Your task to perform on an android device: change keyboard looks Image 0: 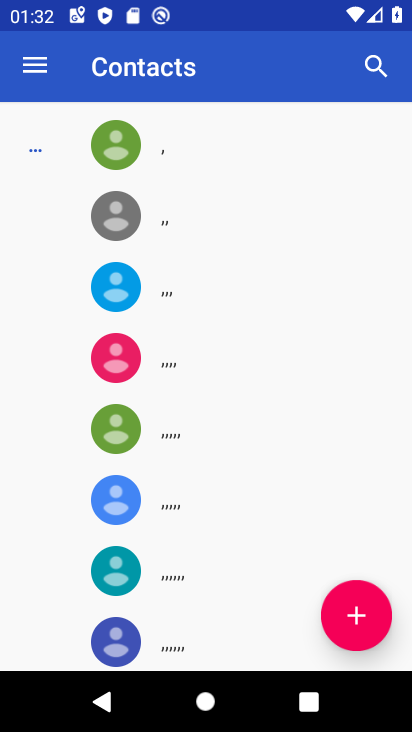
Step 0: press home button
Your task to perform on an android device: change keyboard looks Image 1: 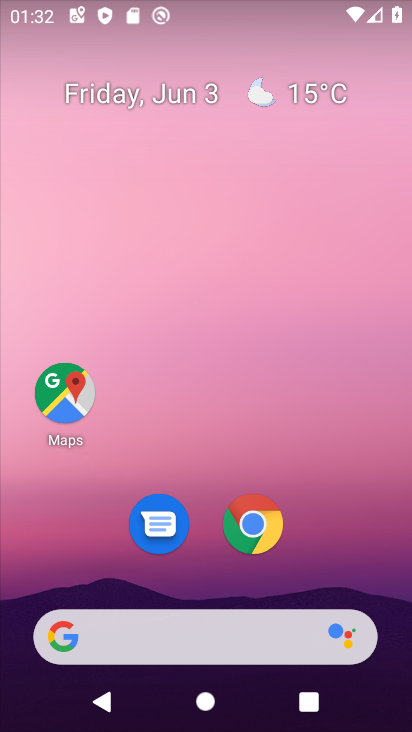
Step 1: drag from (344, 544) to (262, 4)
Your task to perform on an android device: change keyboard looks Image 2: 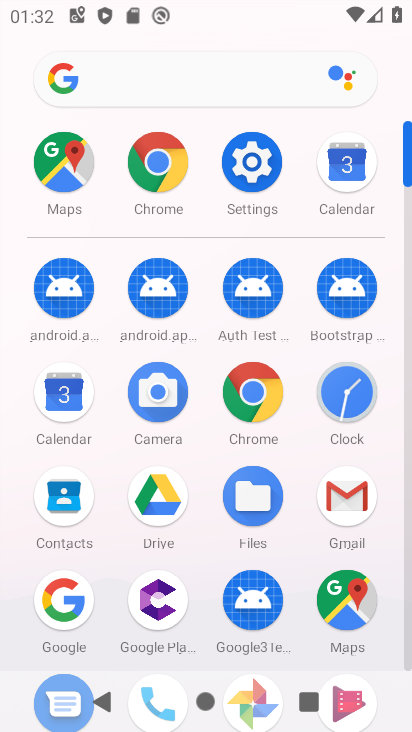
Step 2: click (252, 167)
Your task to perform on an android device: change keyboard looks Image 3: 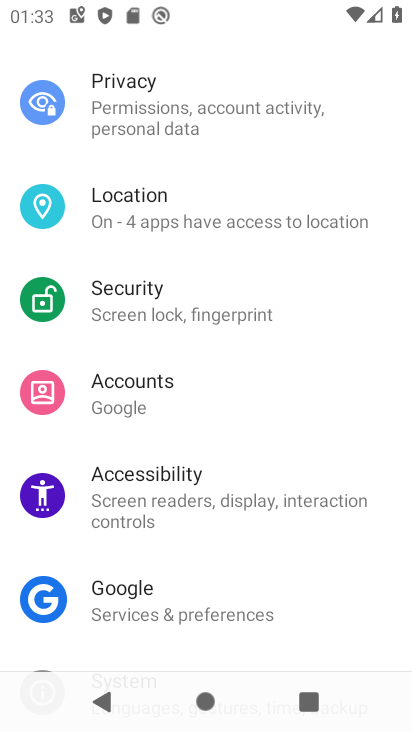
Step 3: drag from (260, 562) to (281, 46)
Your task to perform on an android device: change keyboard looks Image 4: 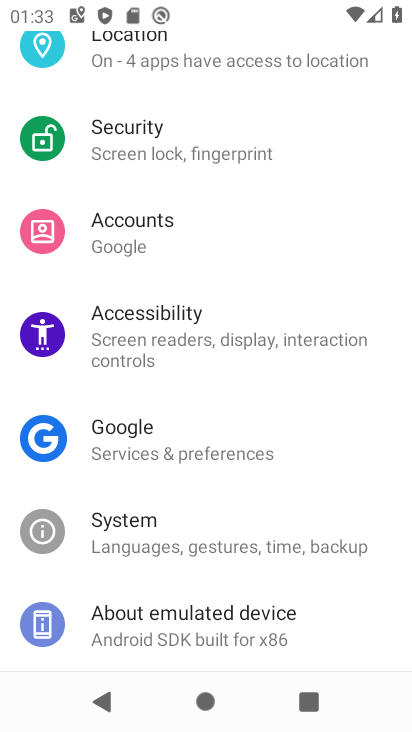
Step 4: click (210, 537)
Your task to perform on an android device: change keyboard looks Image 5: 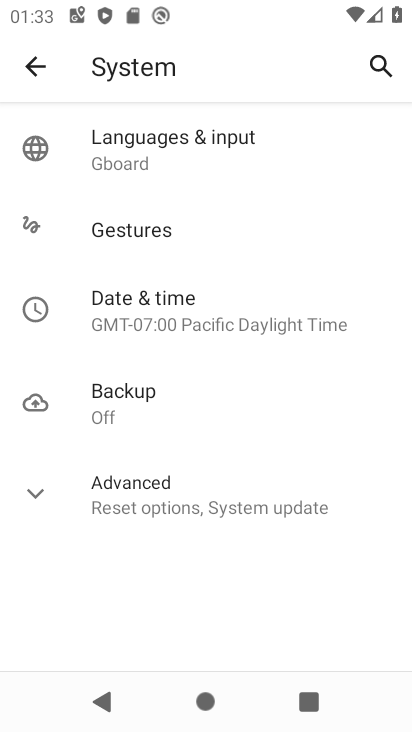
Step 5: click (184, 158)
Your task to perform on an android device: change keyboard looks Image 6: 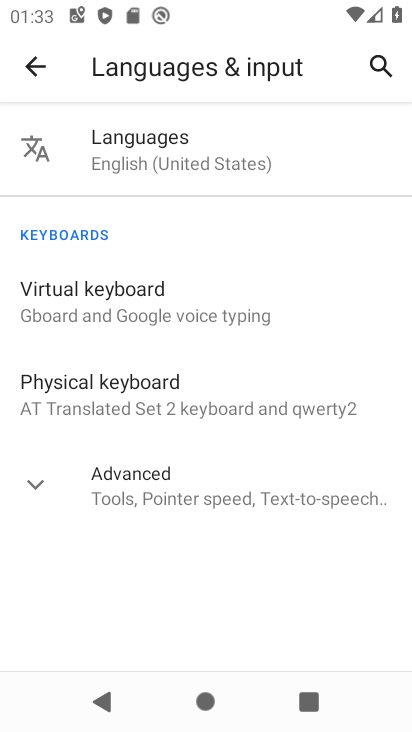
Step 6: click (129, 297)
Your task to perform on an android device: change keyboard looks Image 7: 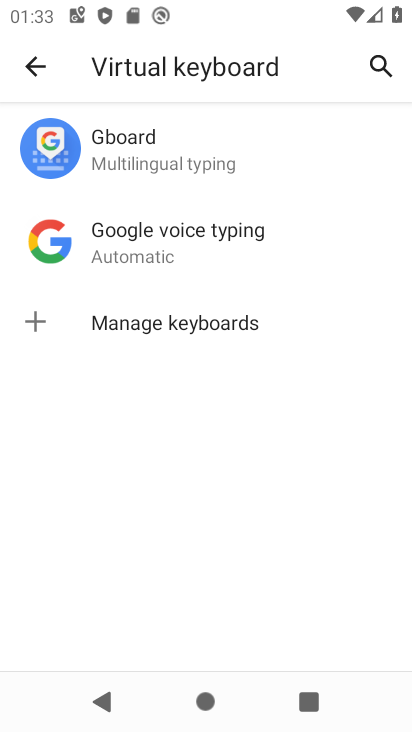
Step 7: click (157, 155)
Your task to perform on an android device: change keyboard looks Image 8: 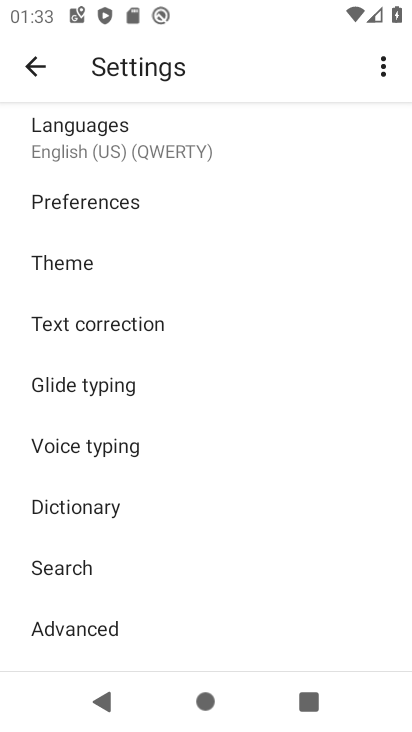
Step 8: click (140, 255)
Your task to perform on an android device: change keyboard looks Image 9: 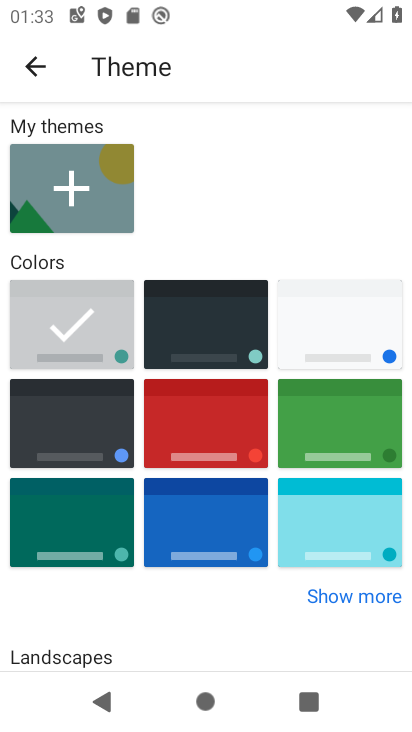
Step 9: click (215, 433)
Your task to perform on an android device: change keyboard looks Image 10: 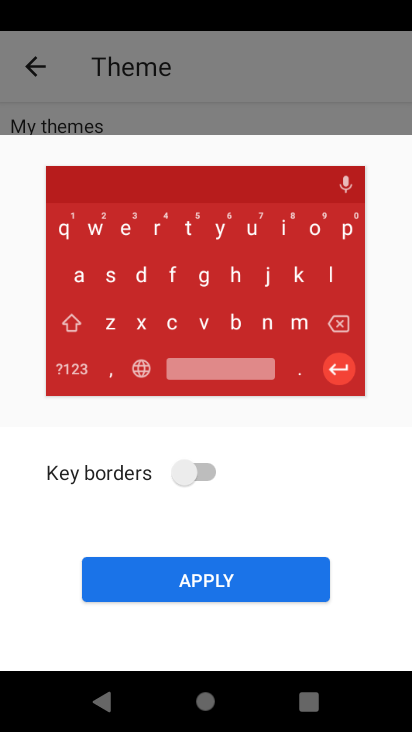
Step 10: click (204, 462)
Your task to perform on an android device: change keyboard looks Image 11: 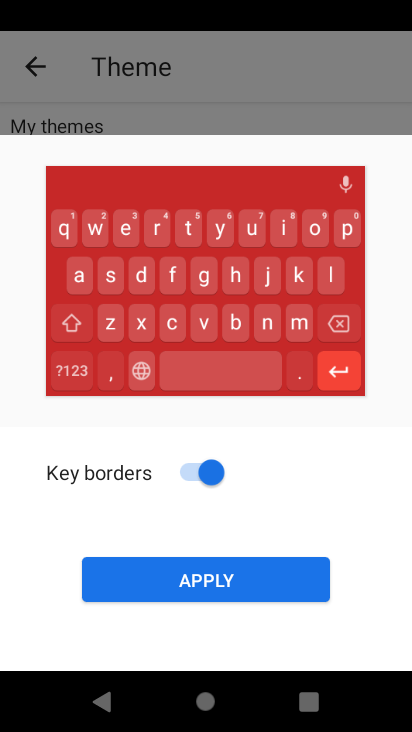
Step 11: click (245, 582)
Your task to perform on an android device: change keyboard looks Image 12: 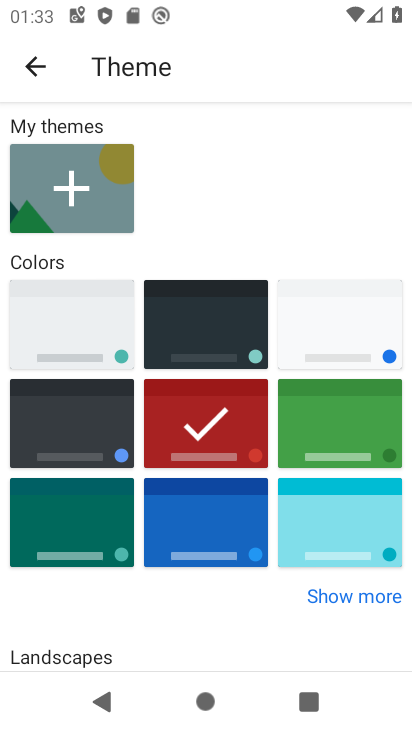
Step 12: task complete